Your task to perform on an android device: turn off improve location accuracy Image 0: 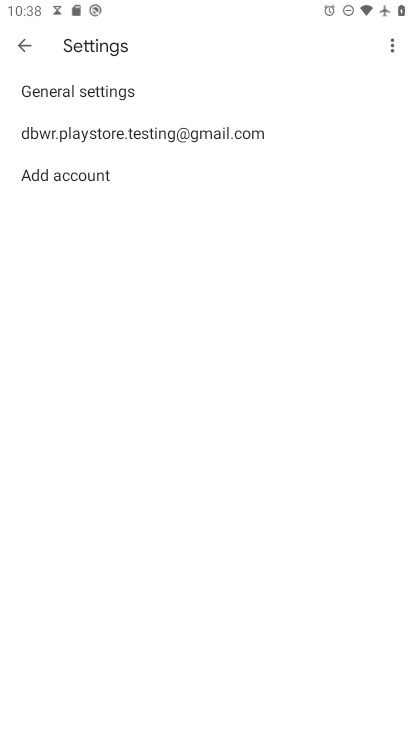
Step 0: press home button
Your task to perform on an android device: turn off improve location accuracy Image 1: 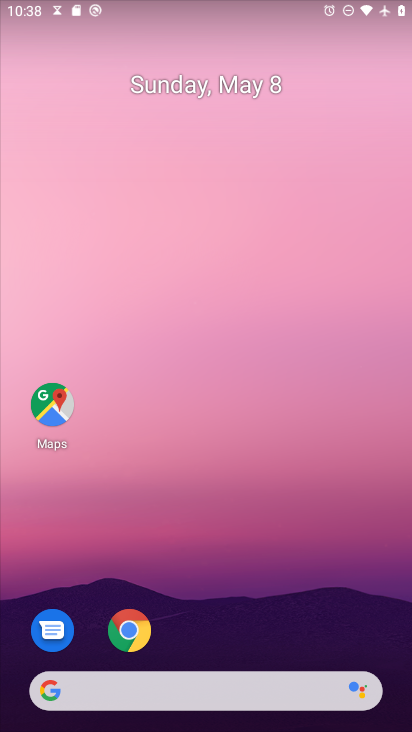
Step 1: drag from (156, 693) to (381, 78)
Your task to perform on an android device: turn off improve location accuracy Image 2: 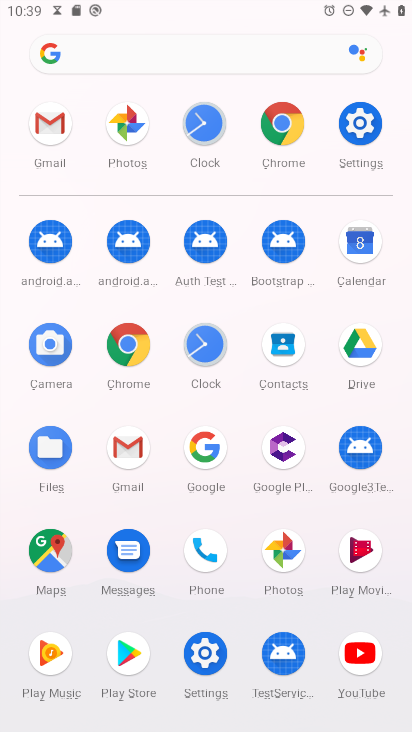
Step 2: click (351, 126)
Your task to perform on an android device: turn off improve location accuracy Image 3: 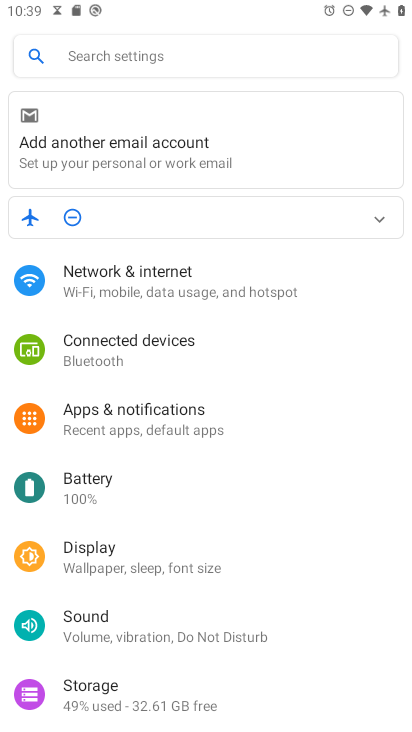
Step 3: drag from (250, 601) to (389, 181)
Your task to perform on an android device: turn off improve location accuracy Image 4: 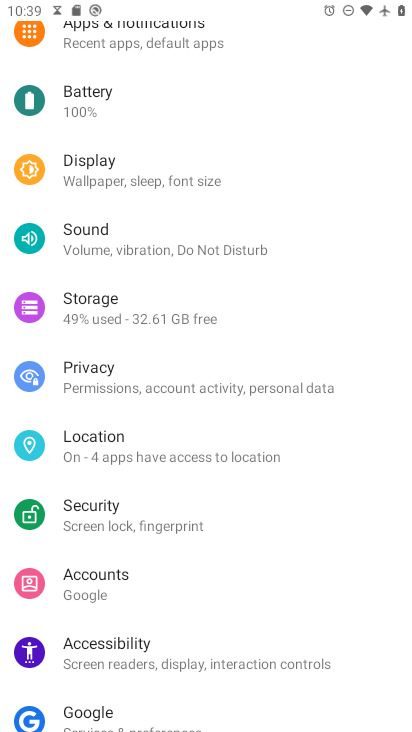
Step 4: click (120, 448)
Your task to perform on an android device: turn off improve location accuracy Image 5: 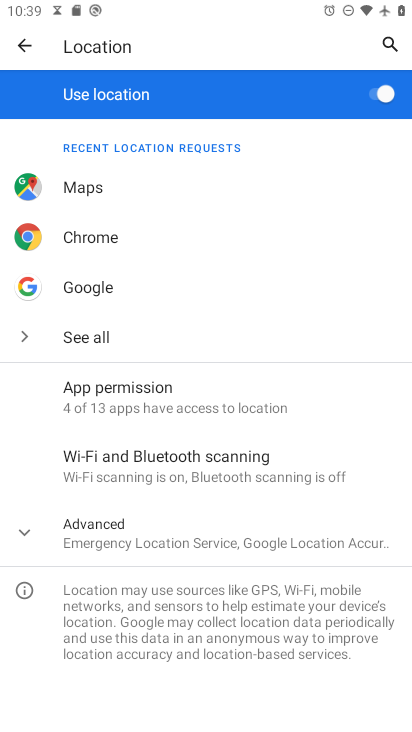
Step 5: click (91, 535)
Your task to perform on an android device: turn off improve location accuracy Image 6: 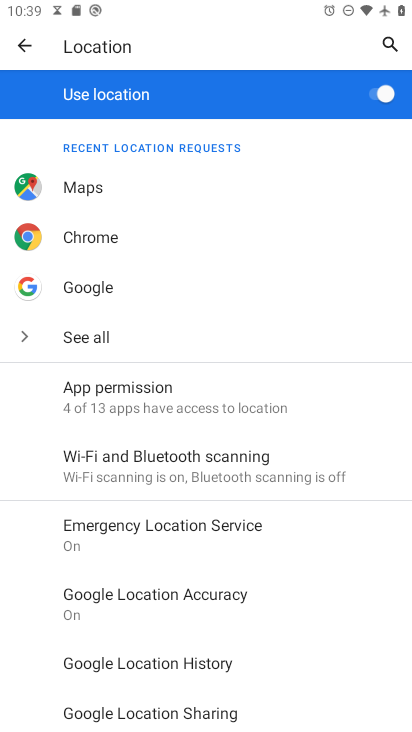
Step 6: drag from (196, 561) to (411, 205)
Your task to perform on an android device: turn off improve location accuracy Image 7: 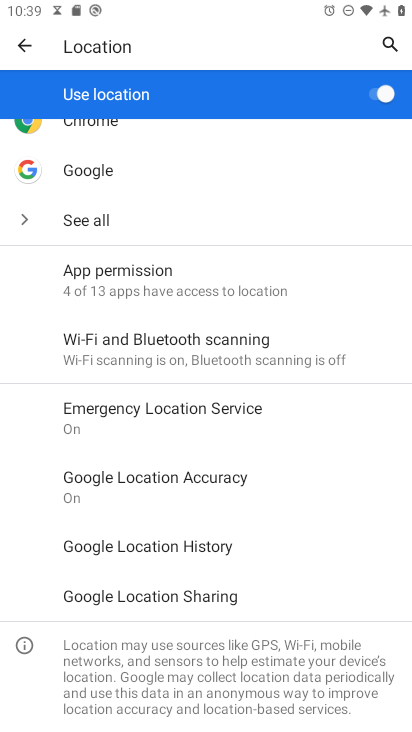
Step 7: click (199, 480)
Your task to perform on an android device: turn off improve location accuracy Image 8: 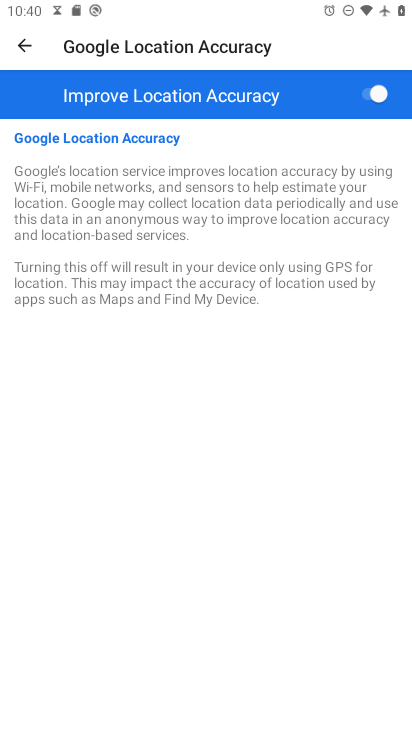
Step 8: click (377, 96)
Your task to perform on an android device: turn off improve location accuracy Image 9: 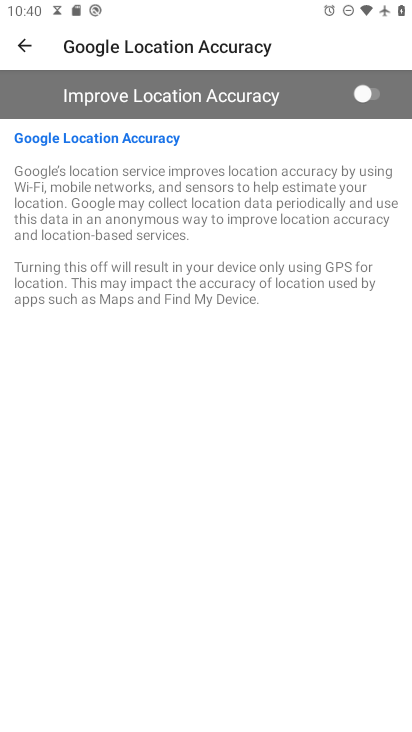
Step 9: task complete